Your task to perform on an android device: open app "DuckDuckGo Privacy Browser" (install if not already installed) Image 0: 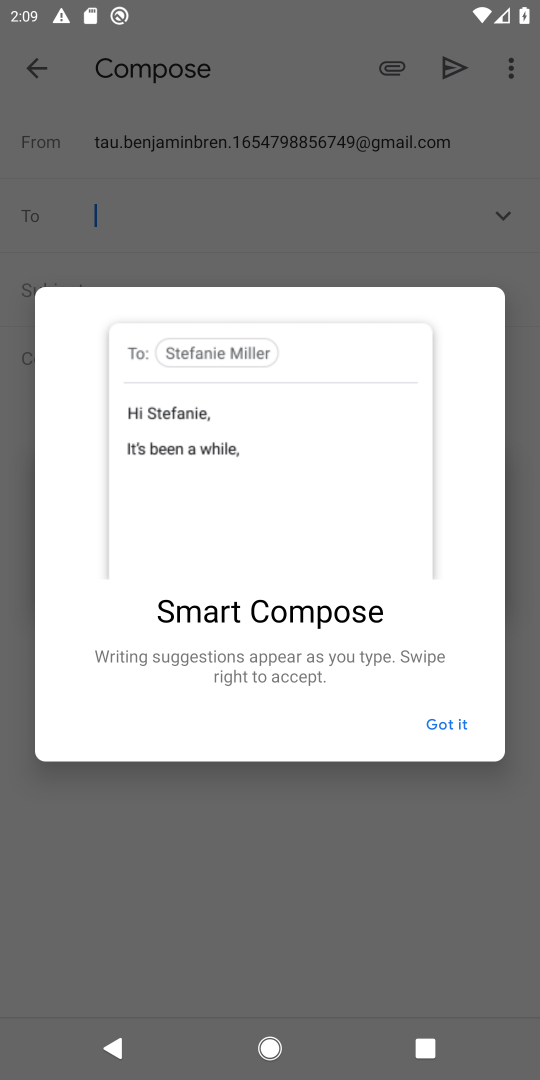
Step 0: press home button
Your task to perform on an android device: open app "DuckDuckGo Privacy Browser" (install if not already installed) Image 1: 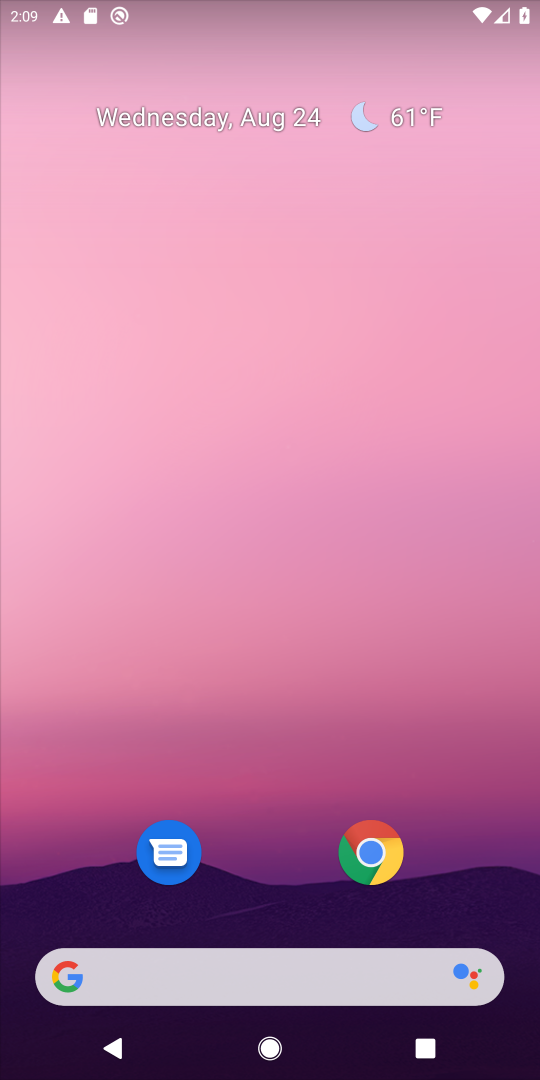
Step 1: drag from (277, 842) to (337, 0)
Your task to perform on an android device: open app "DuckDuckGo Privacy Browser" (install if not already installed) Image 2: 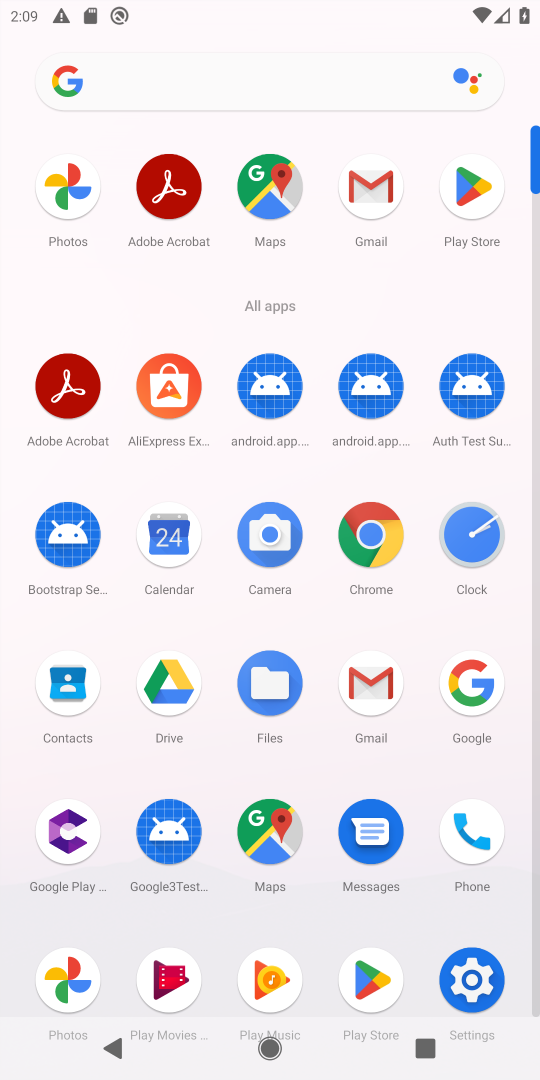
Step 2: click (467, 173)
Your task to perform on an android device: open app "DuckDuckGo Privacy Browser" (install if not already installed) Image 3: 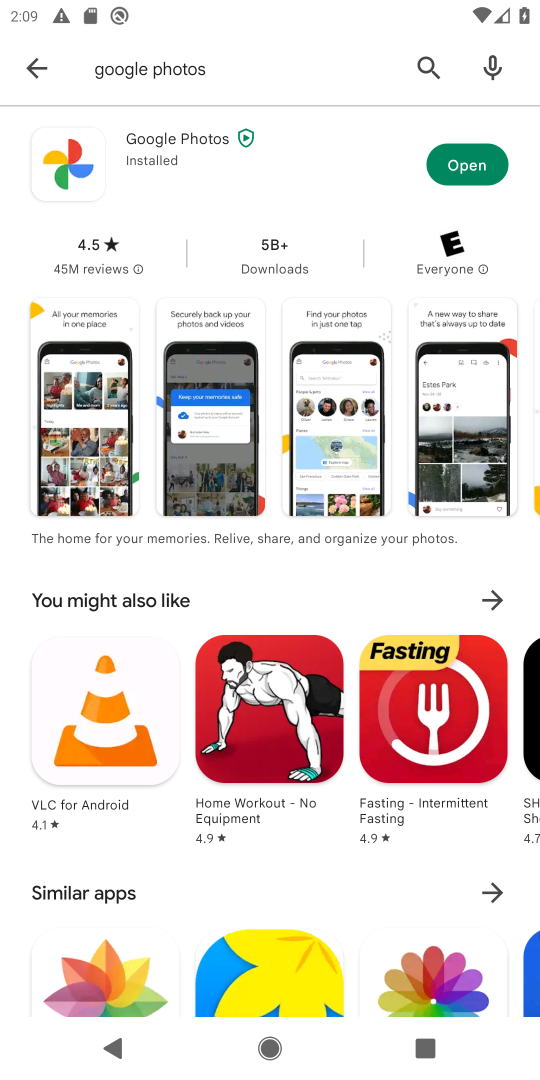
Step 3: click (423, 60)
Your task to perform on an android device: open app "DuckDuckGo Privacy Browser" (install if not already installed) Image 4: 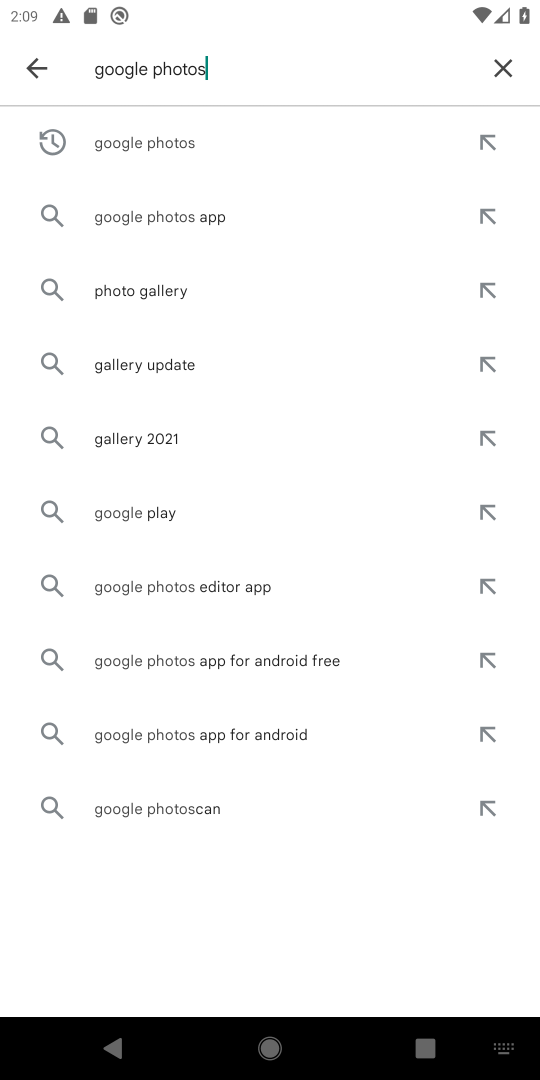
Step 4: click (502, 52)
Your task to perform on an android device: open app "DuckDuckGo Privacy Browser" (install if not already installed) Image 5: 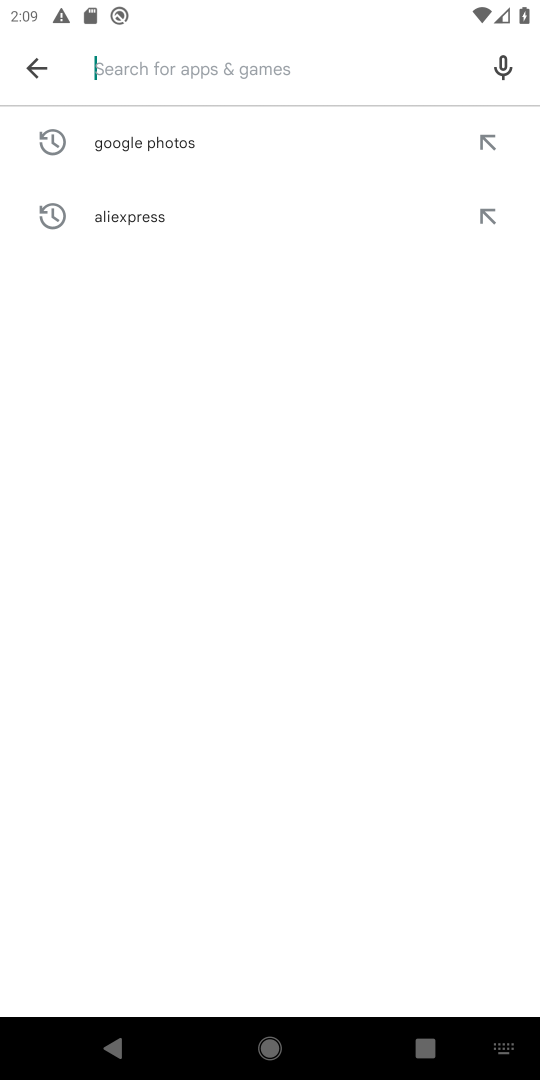
Step 5: type "DuckDuckGo Privacy Browser"
Your task to perform on an android device: open app "DuckDuckGo Privacy Browser" (install if not already installed) Image 6: 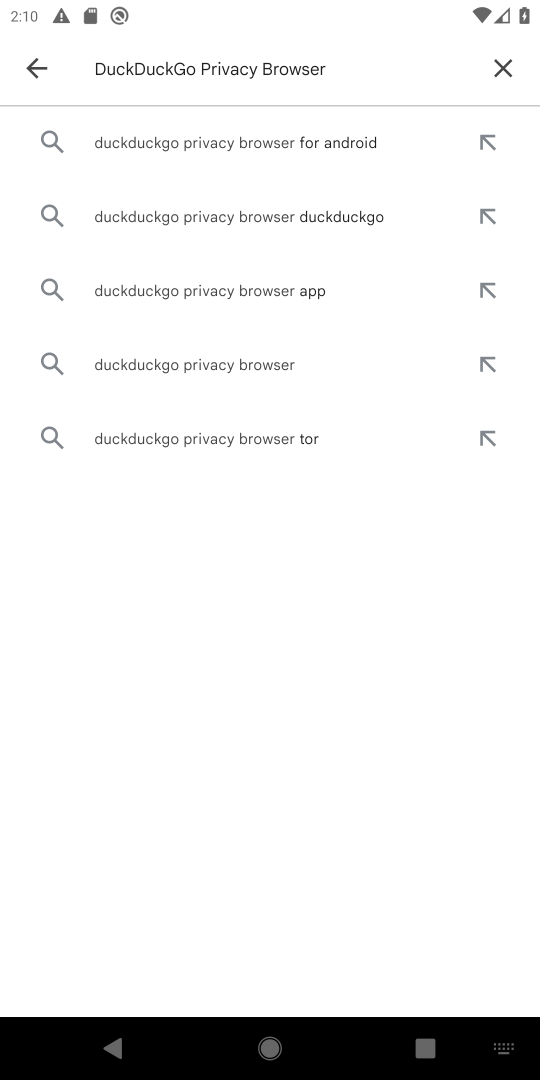
Step 6: click (325, 151)
Your task to perform on an android device: open app "DuckDuckGo Privacy Browser" (install if not already installed) Image 7: 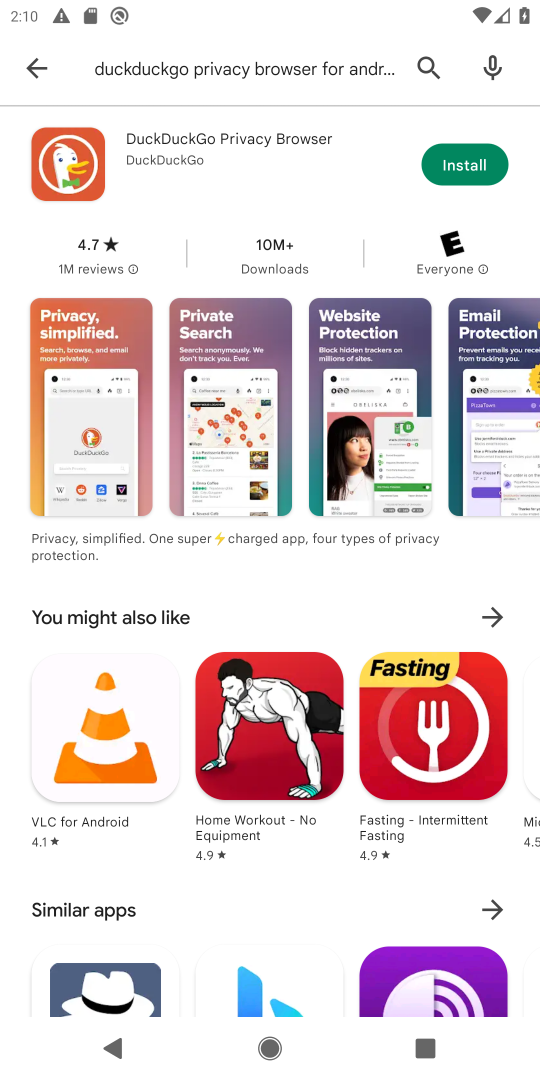
Step 7: click (468, 154)
Your task to perform on an android device: open app "DuckDuckGo Privacy Browser" (install if not already installed) Image 8: 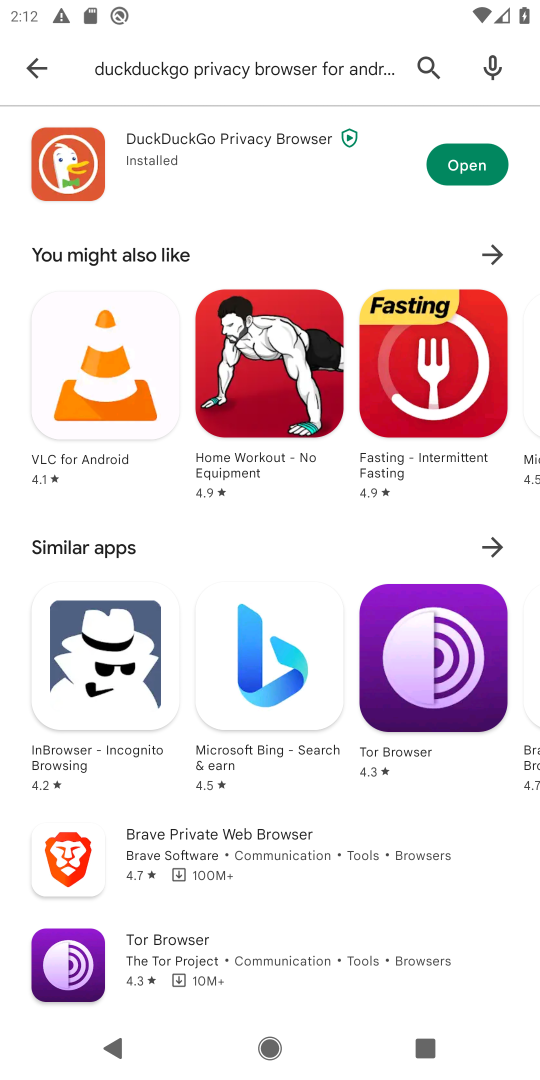
Step 8: click (478, 175)
Your task to perform on an android device: open app "DuckDuckGo Privacy Browser" (install if not already installed) Image 9: 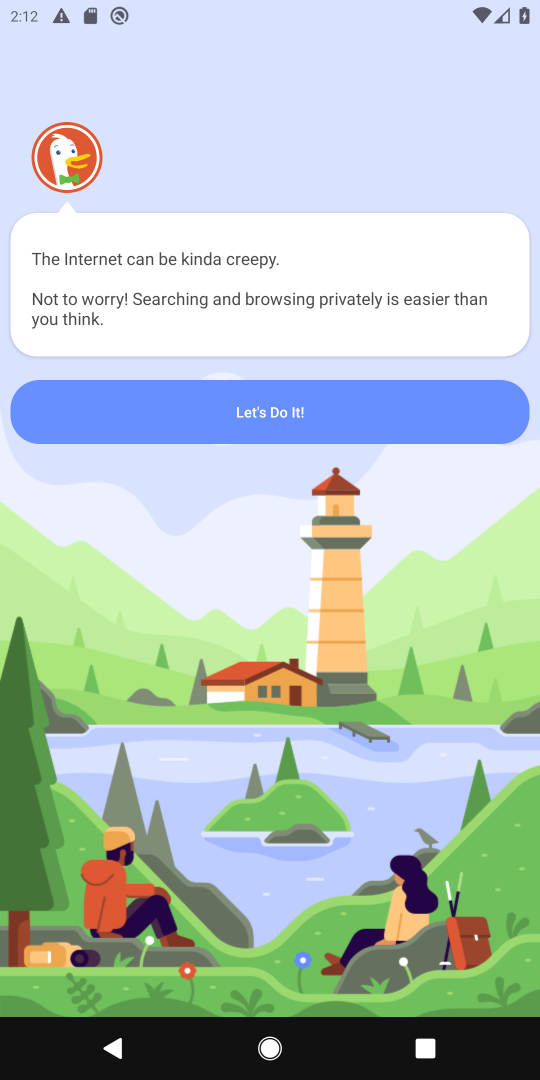
Step 9: click (273, 414)
Your task to perform on an android device: open app "DuckDuckGo Privacy Browser" (install if not already installed) Image 10: 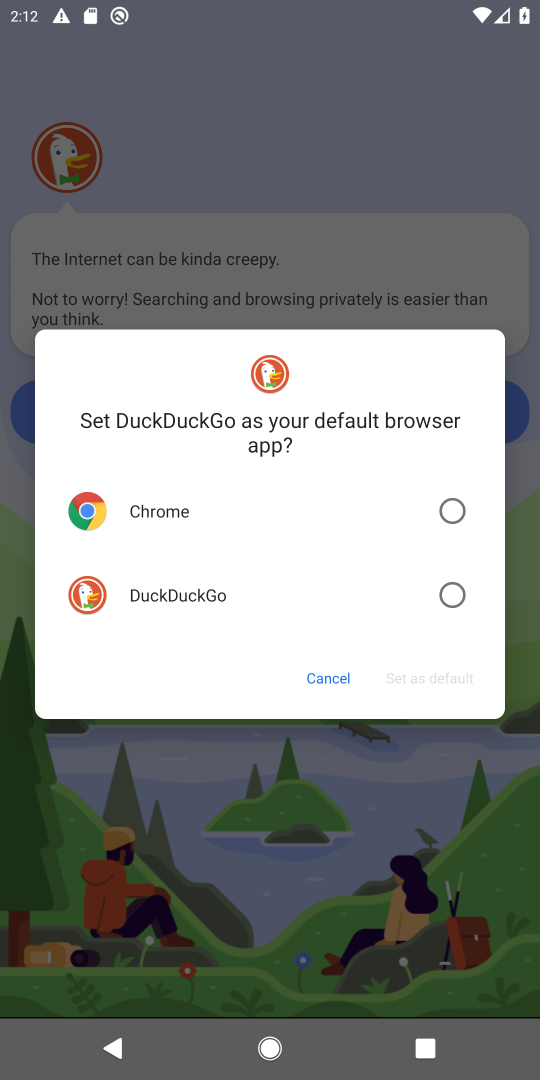
Step 10: click (456, 590)
Your task to perform on an android device: open app "DuckDuckGo Privacy Browser" (install if not already installed) Image 11: 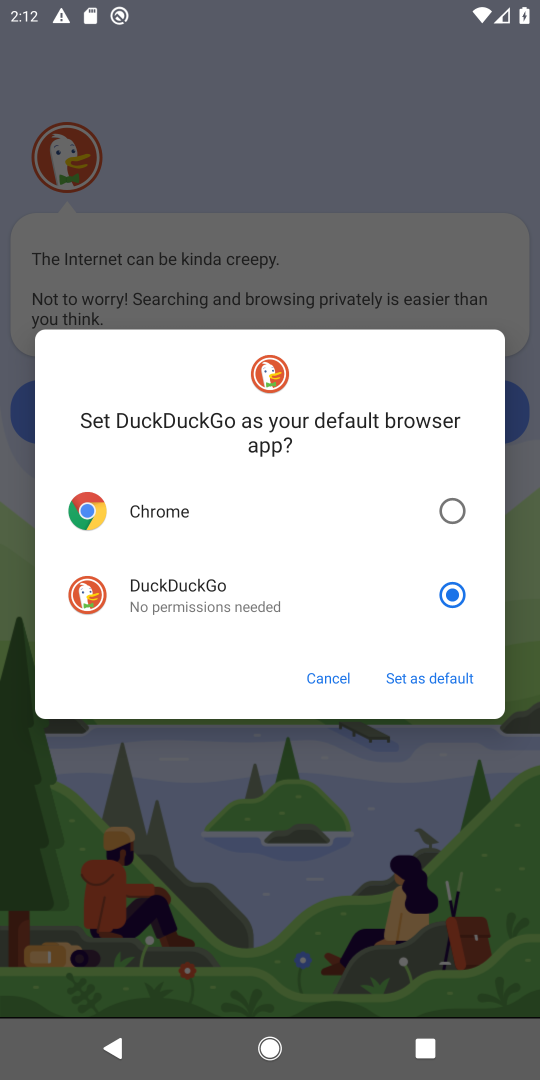
Step 11: click (431, 684)
Your task to perform on an android device: open app "DuckDuckGo Privacy Browser" (install if not already installed) Image 12: 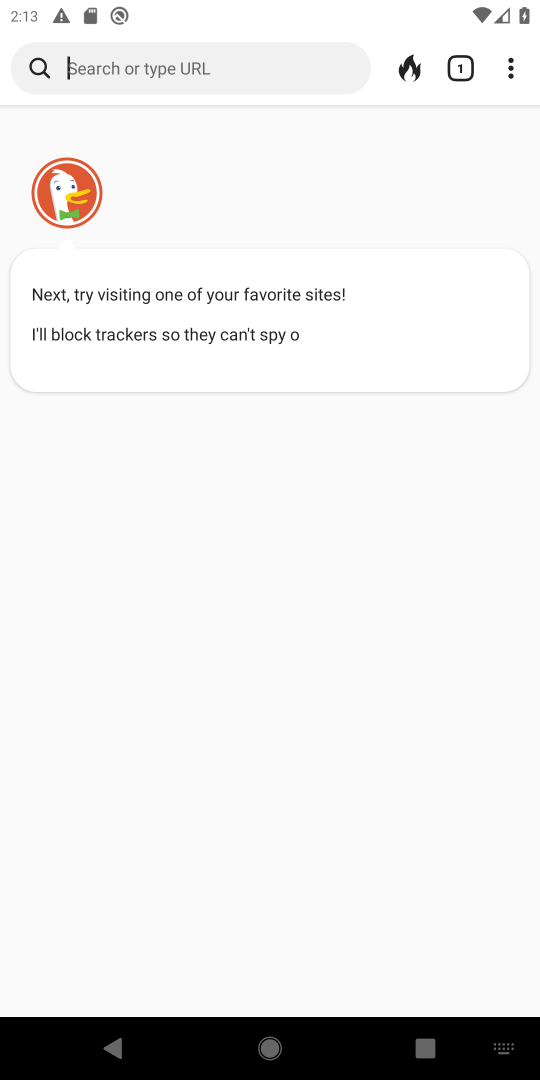
Step 12: task complete